Your task to perform on an android device: clear all cookies in the chrome app Image 0: 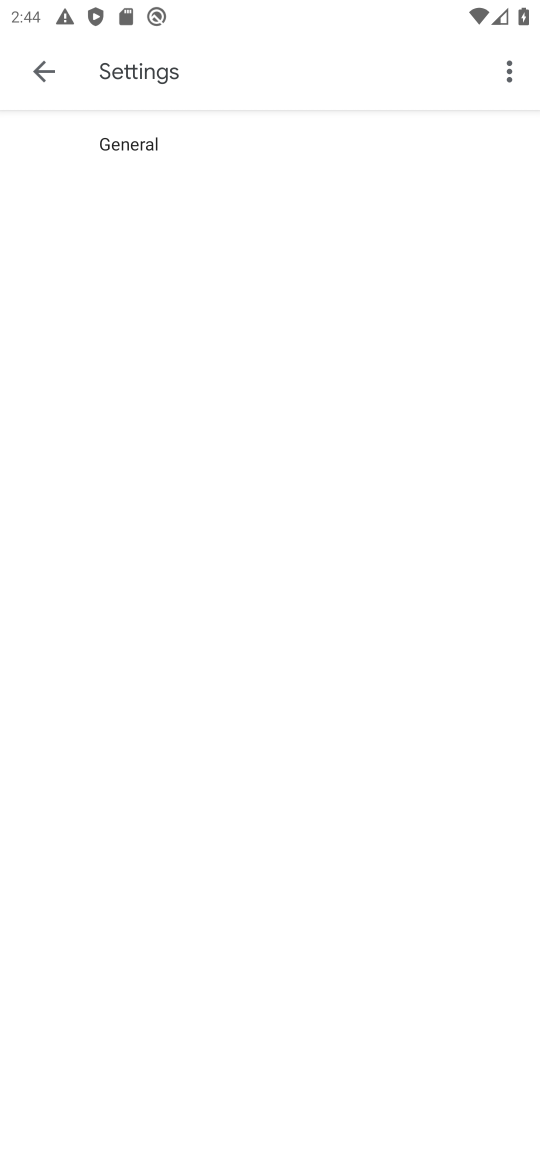
Step 0: press home button
Your task to perform on an android device: clear all cookies in the chrome app Image 1: 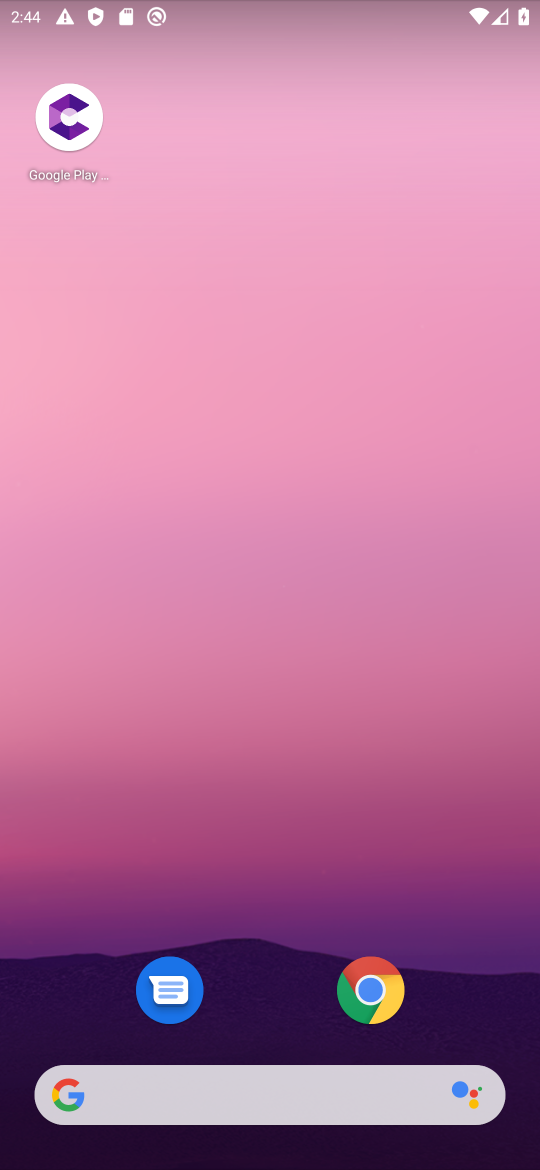
Step 1: drag from (374, 1113) to (279, 27)
Your task to perform on an android device: clear all cookies in the chrome app Image 2: 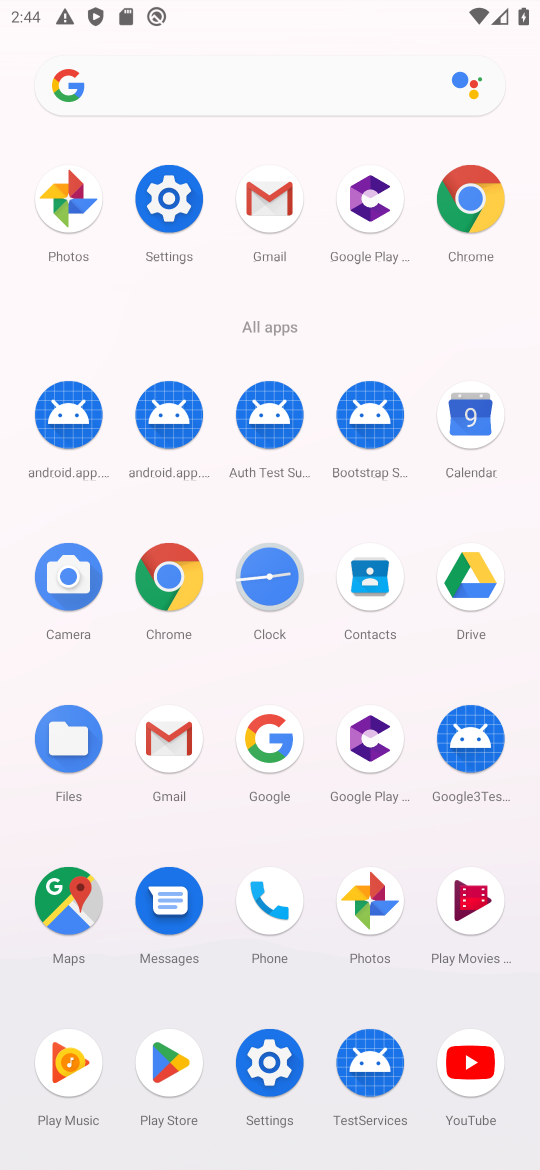
Step 2: click (175, 559)
Your task to perform on an android device: clear all cookies in the chrome app Image 3: 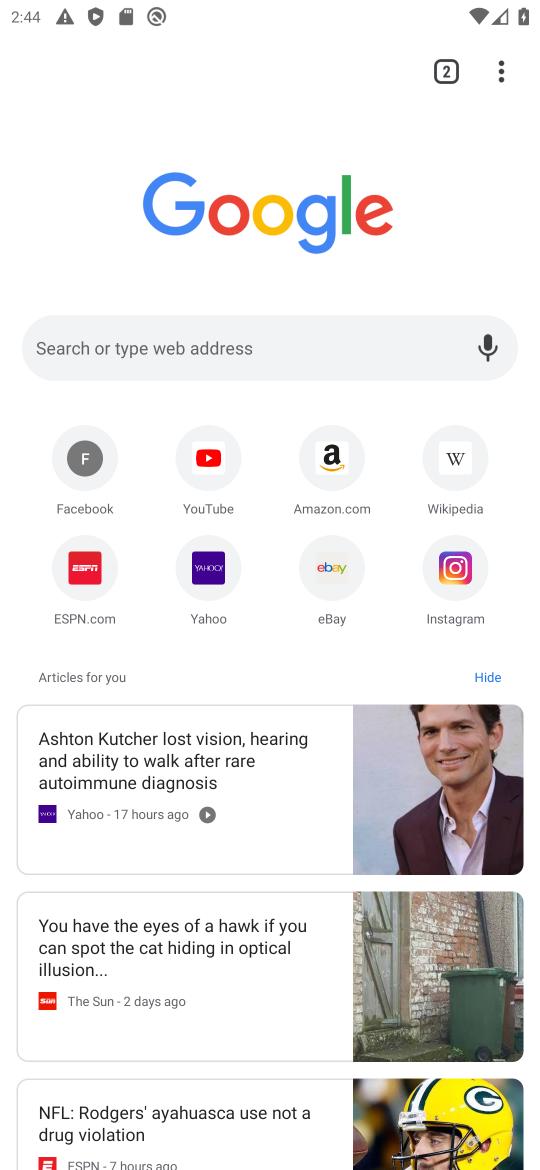
Step 3: click (514, 58)
Your task to perform on an android device: clear all cookies in the chrome app Image 4: 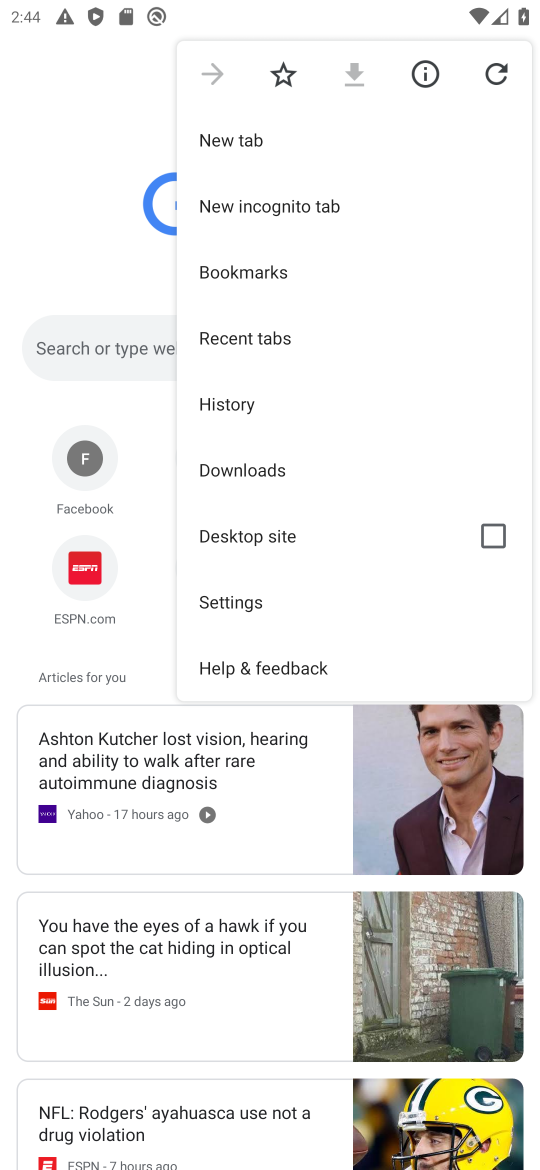
Step 4: click (288, 606)
Your task to perform on an android device: clear all cookies in the chrome app Image 5: 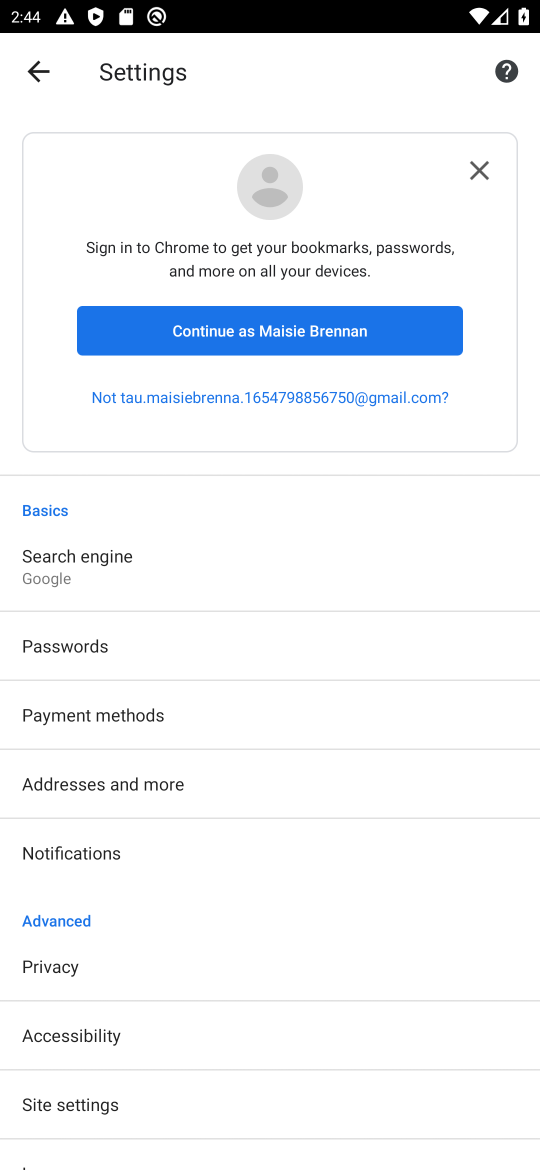
Step 5: click (147, 971)
Your task to perform on an android device: clear all cookies in the chrome app Image 6: 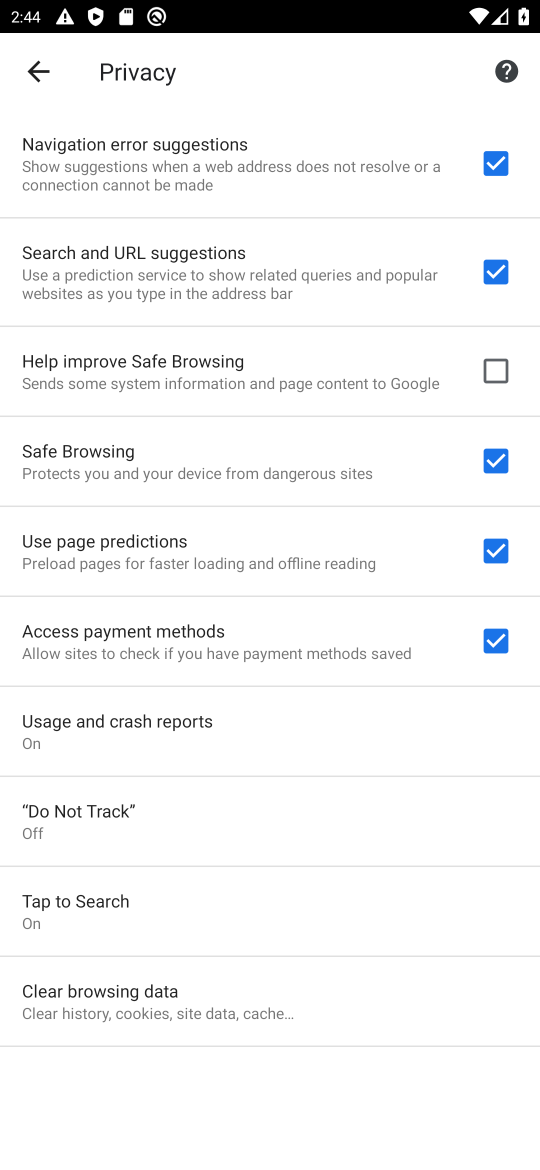
Step 6: click (246, 1024)
Your task to perform on an android device: clear all cookies in the chrome app Image 7: 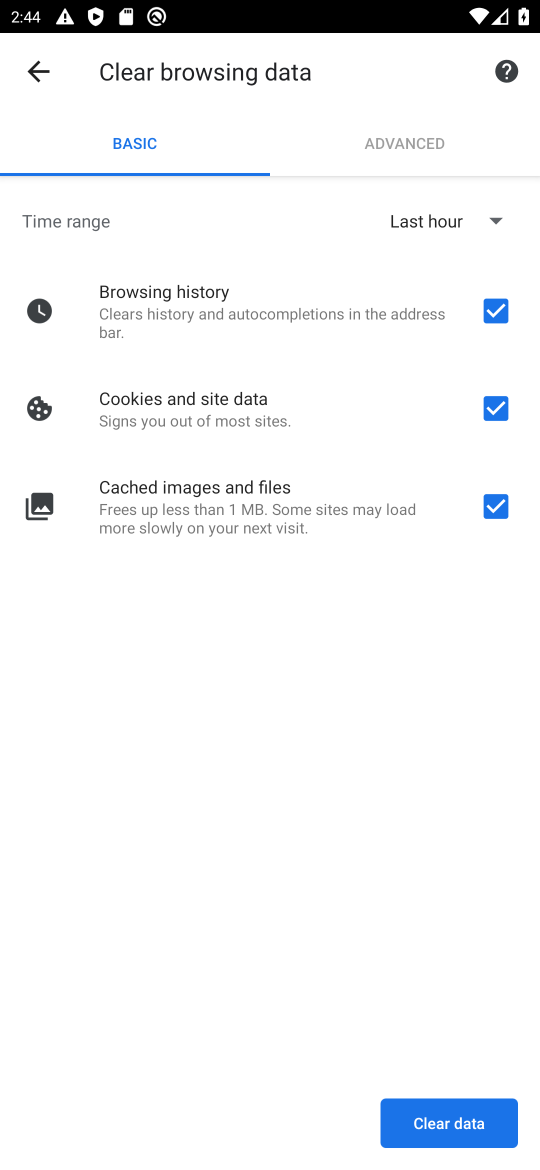
Step 7: click (487, 1120)
Your task to perform on an android device: clear all cookies in the chrome app Image 8: 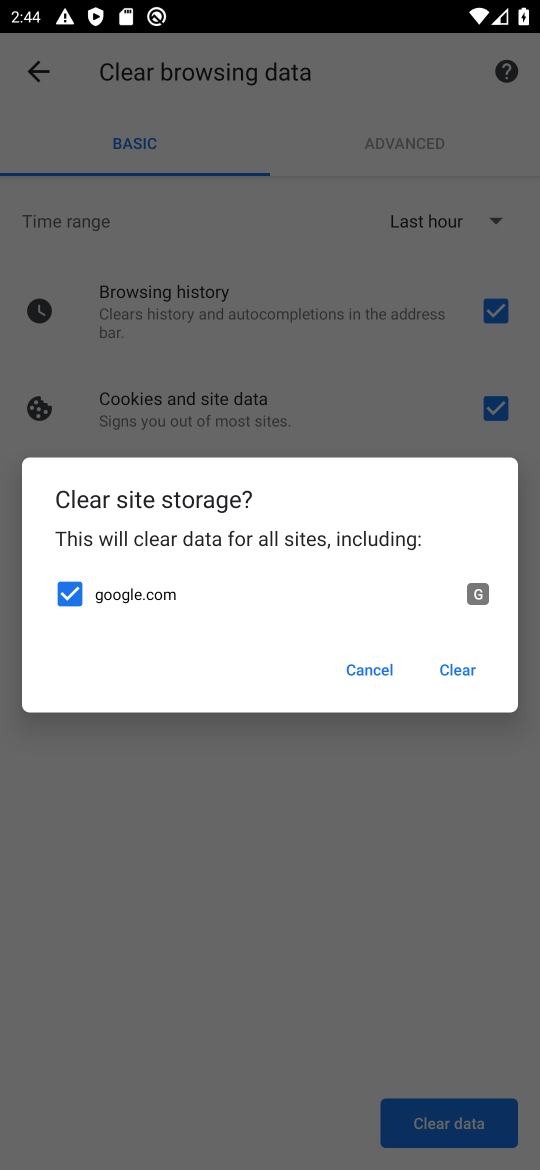
Step 8: click (445, 664)
Your task to perform on an android device: clear all cookies in the chrome app Image 9: 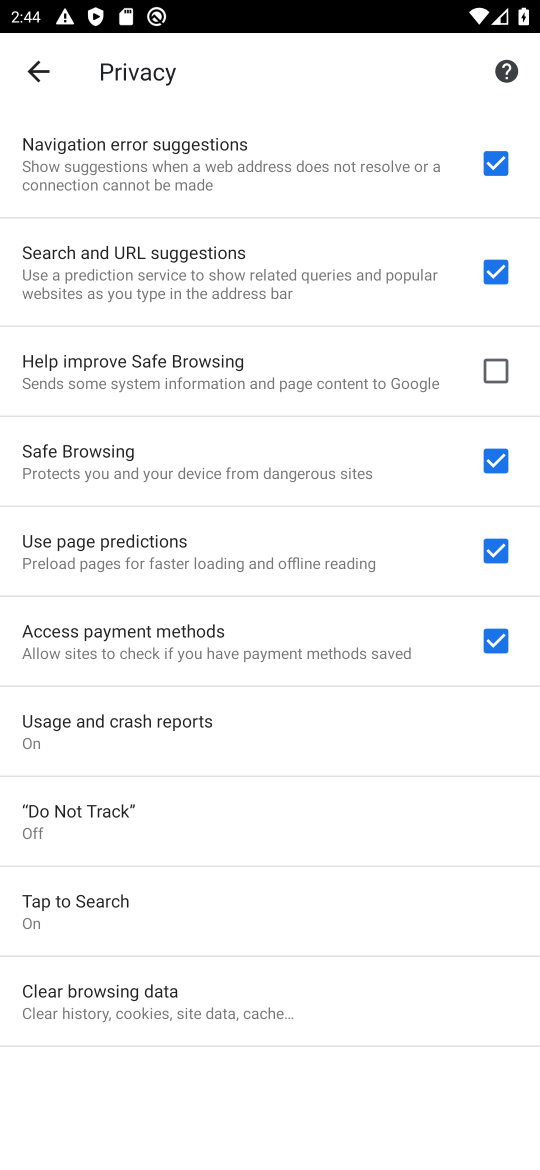
Step 9: task complete